Your task to perform on an android device: Go to internet settings Image 0: 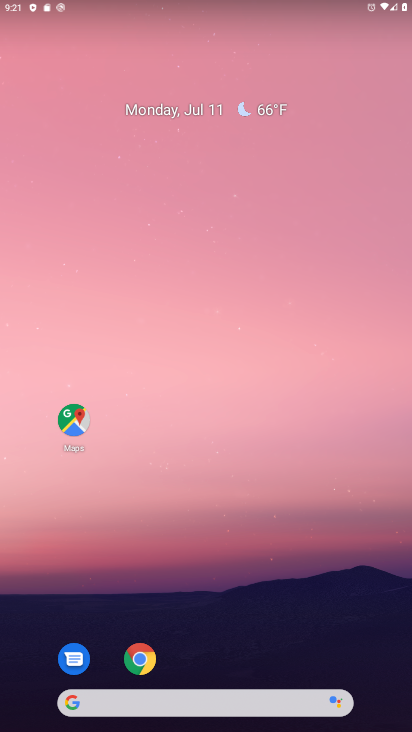
Step 0: drag from (328, 662) to (351, 228)
Your task to perform on an android device: Go to internet settings Image 1: 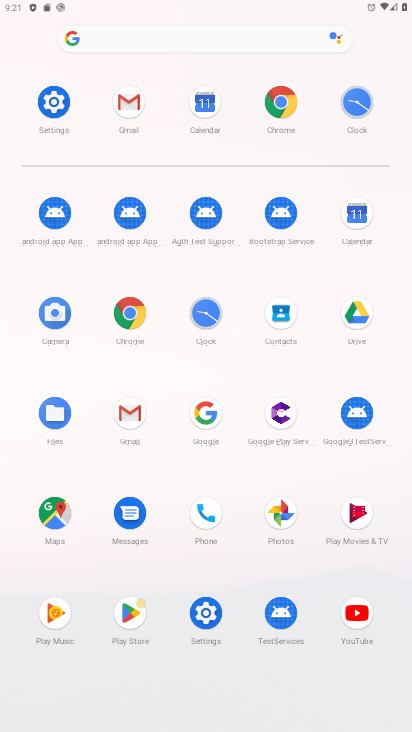
Step 1: click (204, 608)
Your task to perform on an android device: Go to internet settings Image 2: 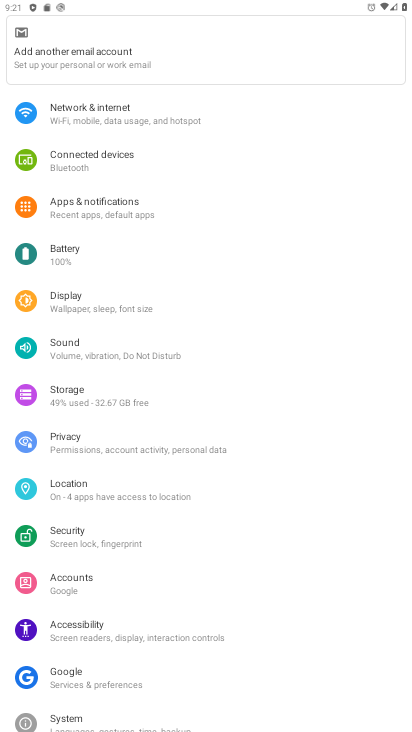
Step 2: drag from (335, 605) to (314, 472)
Your task to perform on an android device: Go to internet settings Image 3: 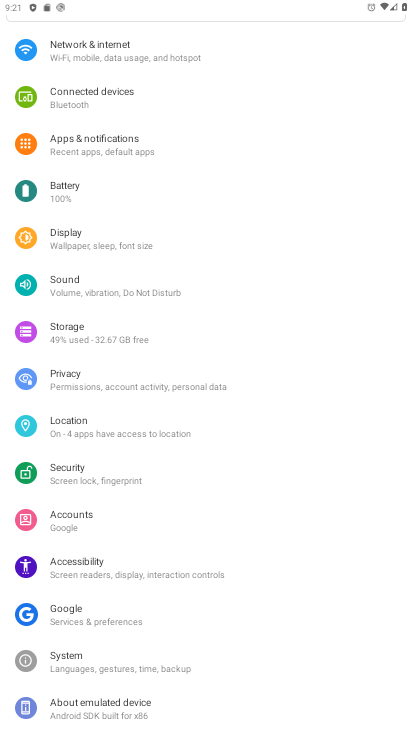
Step 3: drag from (307, 377) to (305, 457)
Your task to perform on an android device: Go to internet settings Image 4: 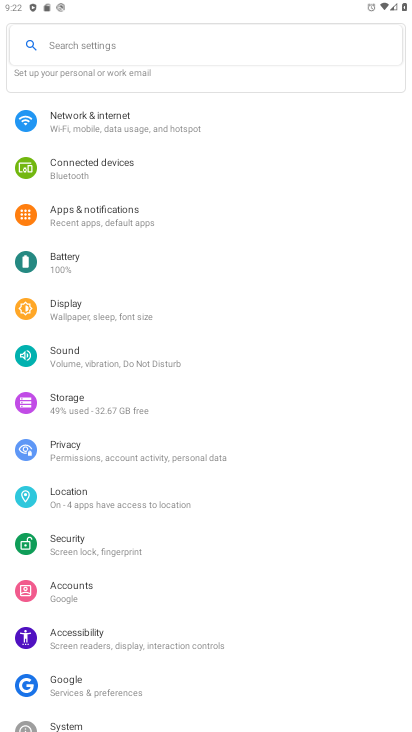
Step 4: drag from (296, 284) to (299, 377)
Your task to perform on an android device: Go to internet settings Image 5: 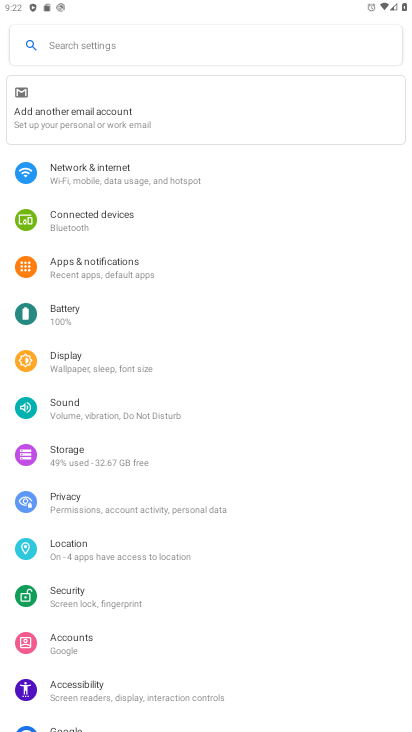
Step 5: click (204, 166)
Your task to perform on an android device: Go to internet settings Image 6: 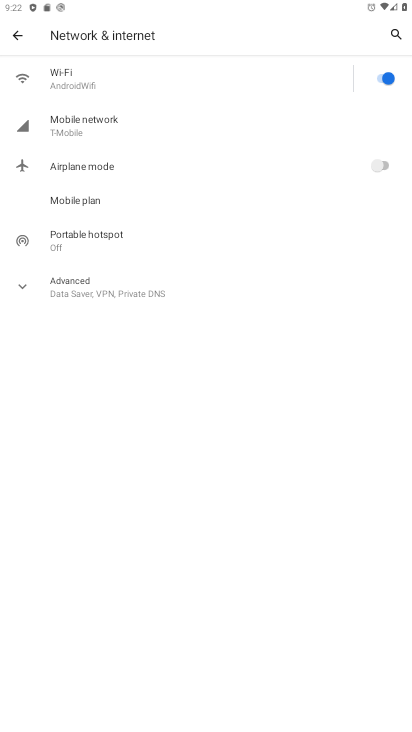
Step 6: task complete